Your task to perform on an android device: Search for apple airpods on walmart, select the first entry, and add it to the cart. Image 0: 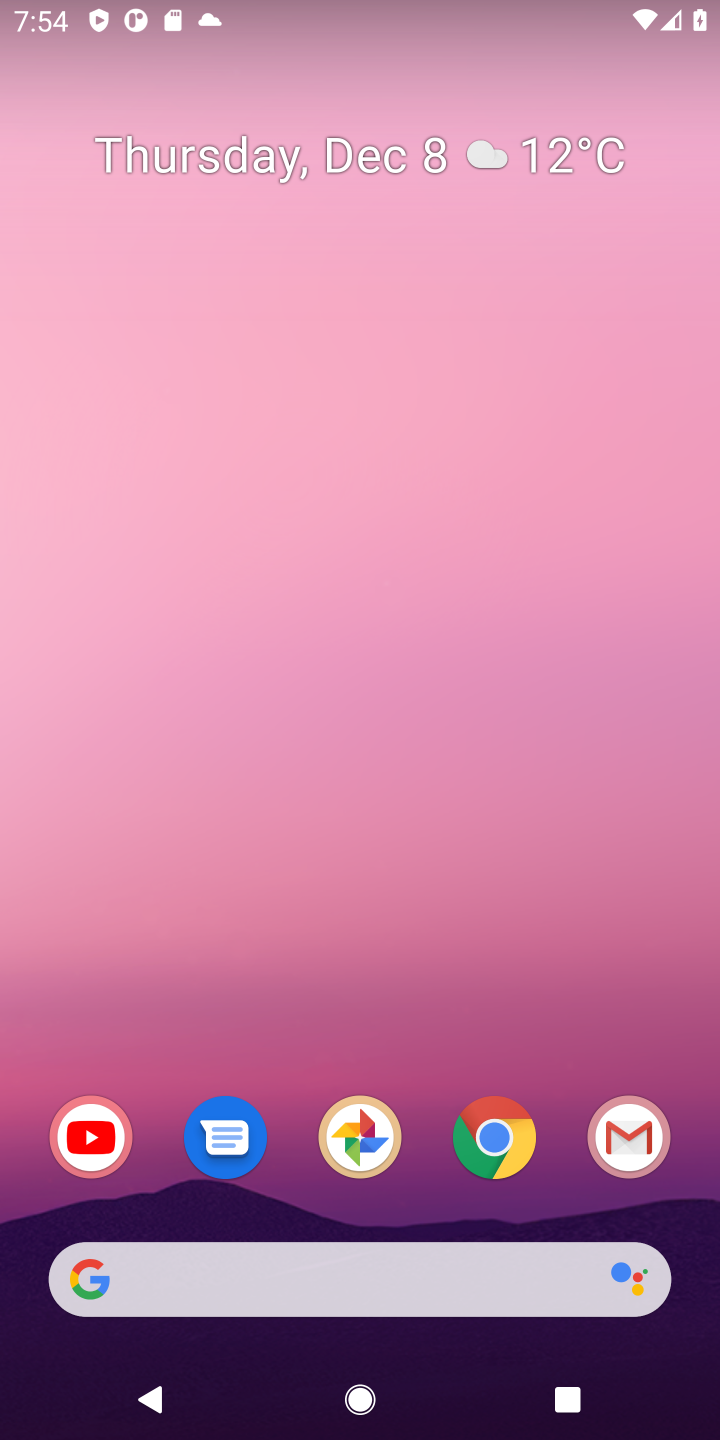
Step 0: click (500, 1161)
Your task to perform on an android device: Search for apple airpods on walmart, select the first entry, and add it to the cart. Image 1: 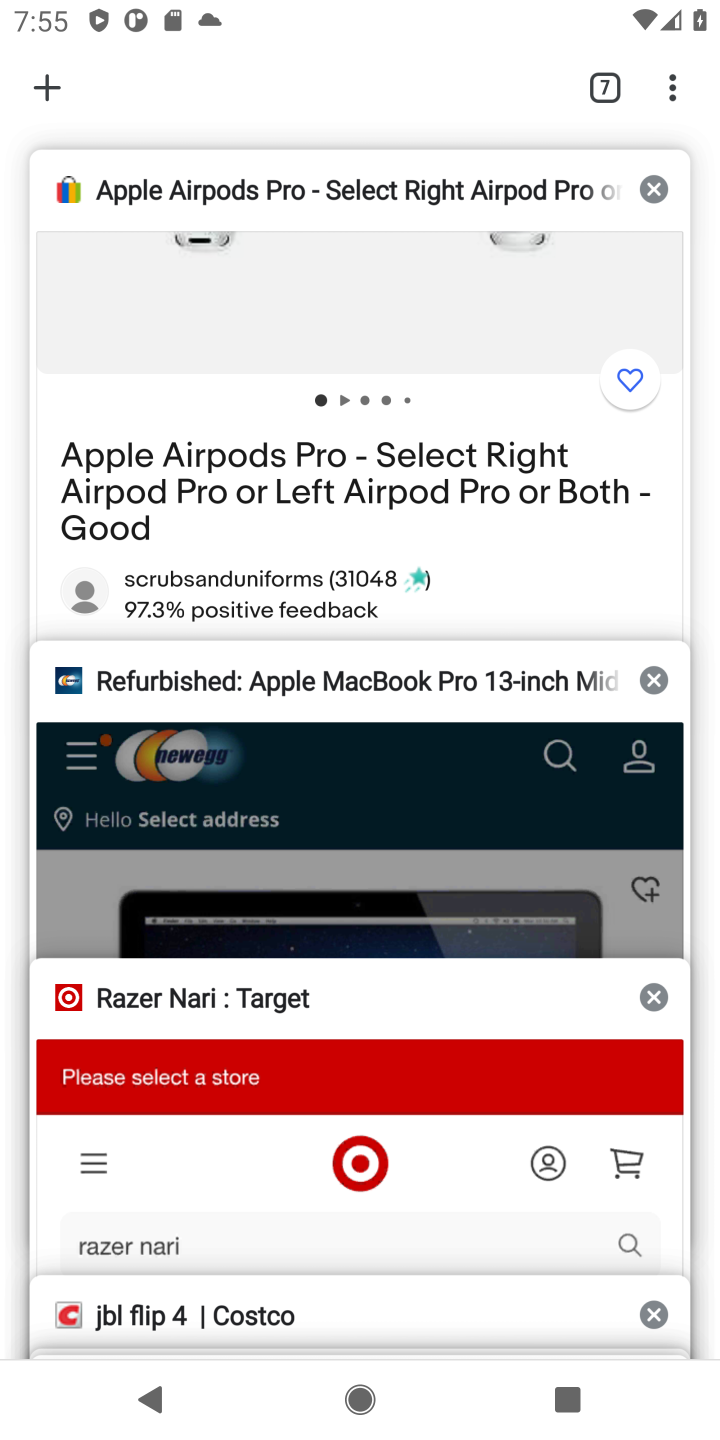
Step 1: drag from (314, 1185) to (465, 271)
Your task to perform on an android device: Search for apple airpods on walmart, select the first entry, and add it to the cart. Image 2: 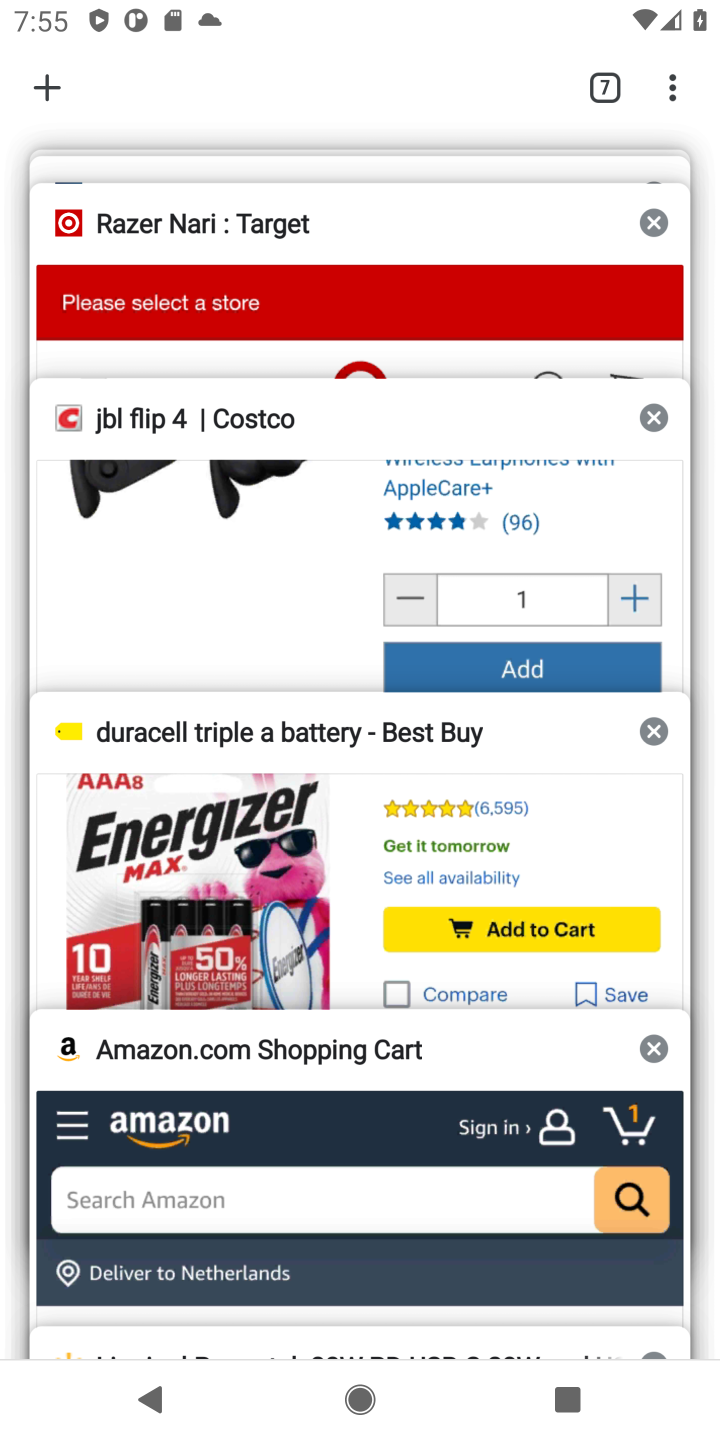
Step 2: drag from (297, 1234) to (428, 782)
Your task to perform on an android device: Search for apple airpods on walmart, select the first entry, and add it to the cart. Image 3: 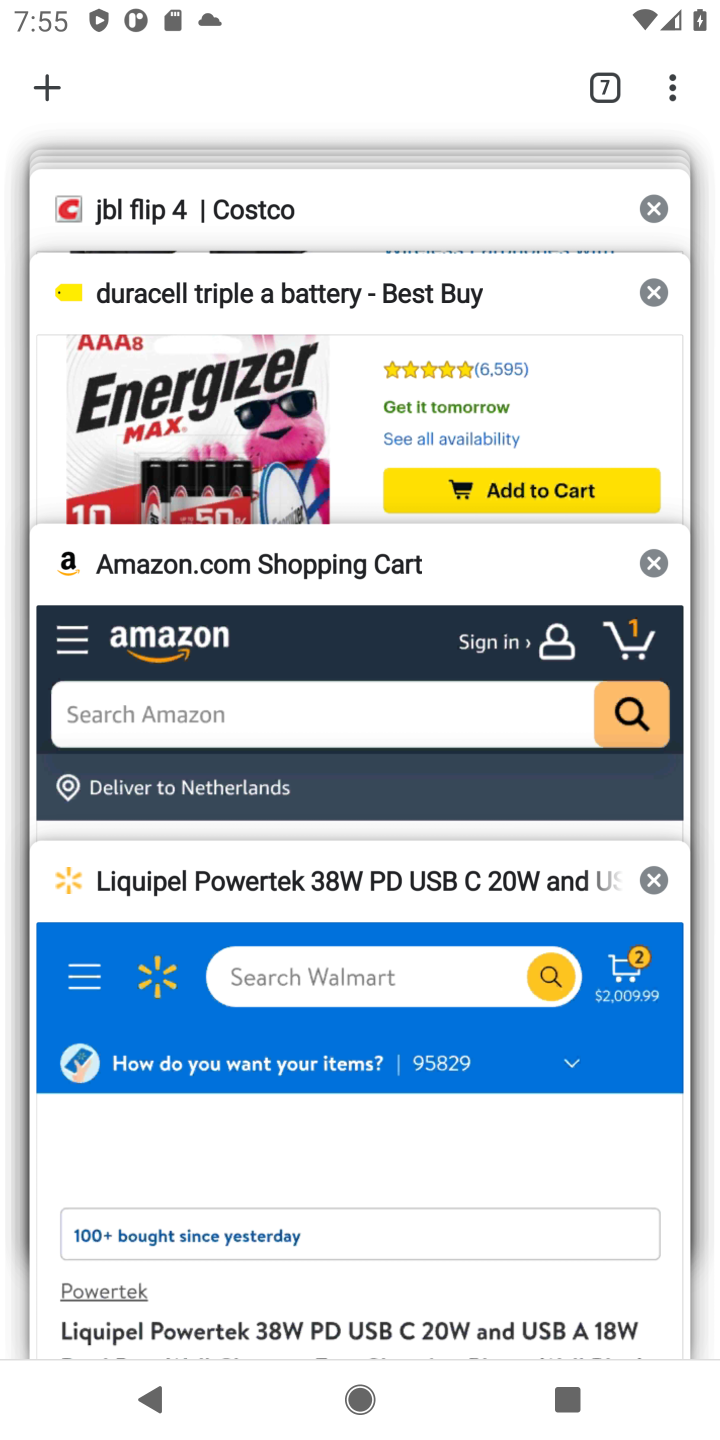
Step 3: click (144, 1028)
Your task to perform on an android device: Search for apple airpods on walmart, select the first entry, and add it to the cart. Image 4: 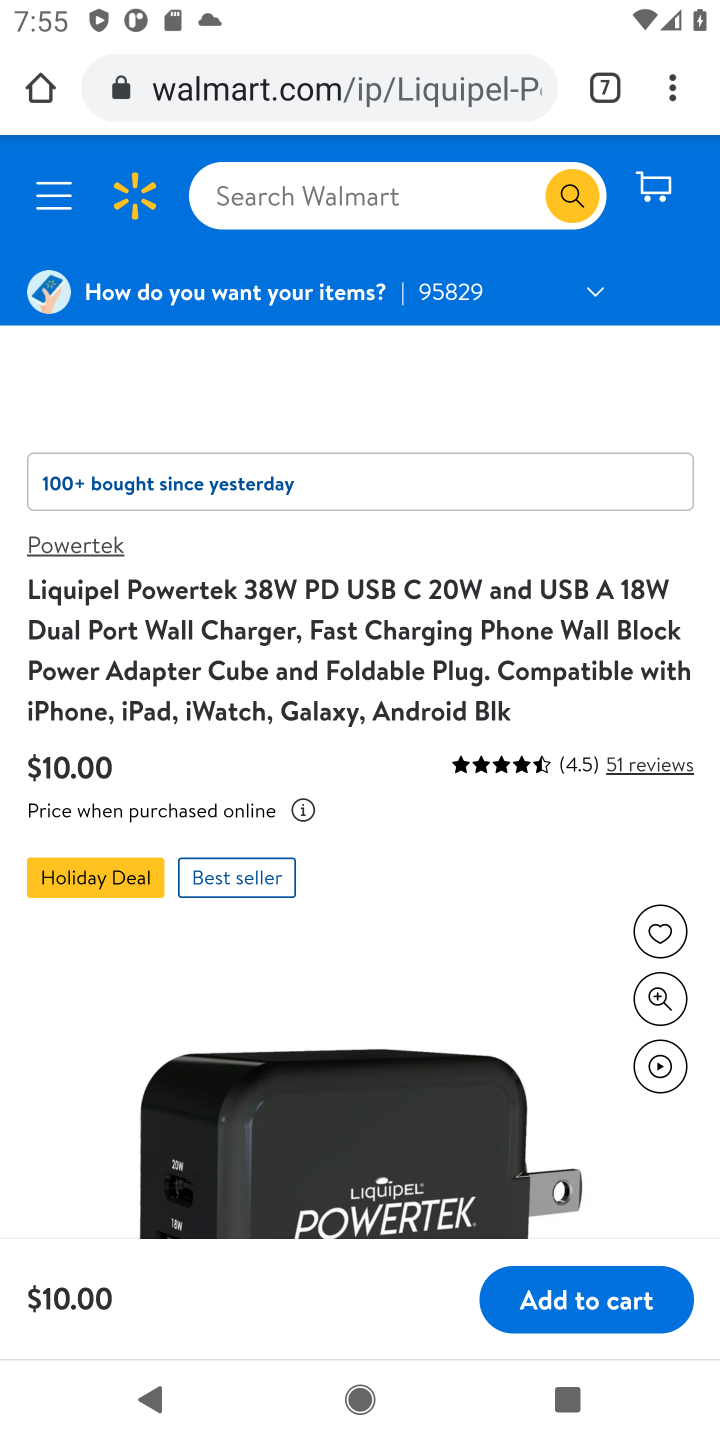
Step 4: click (391, 187)
Your task to perform on an android device: Search for apple airpods on walmart, select the first entry, and add it to the cart. Image 5: 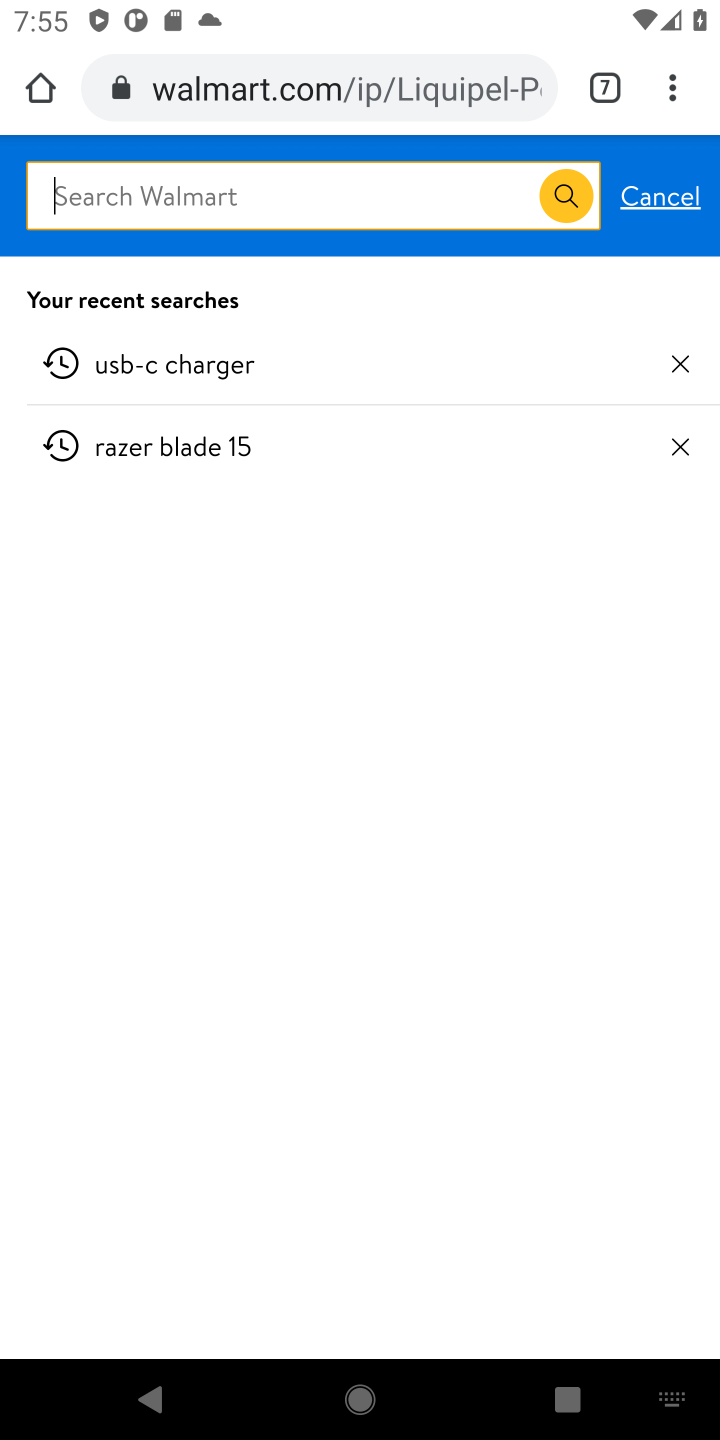
Step 5: type "apple airpods"
Your task to perform on an android device: Search for apple airpods on walmart, select the first entry, and add it to the cart. Image 6: 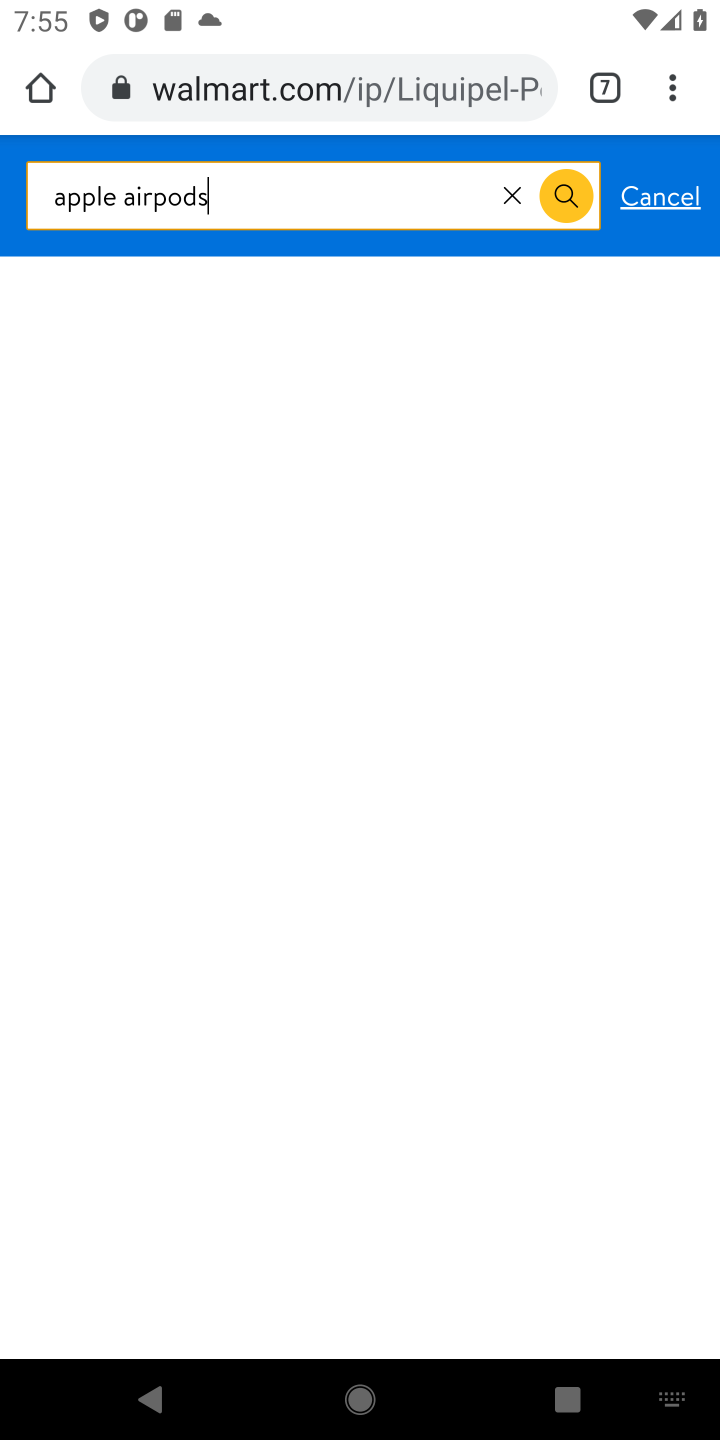
Step 6: click (572, 182)
Your task to perform on an android device: Search for apple airpods on walmart, select the first entry, and add it to the cart. Image 7: 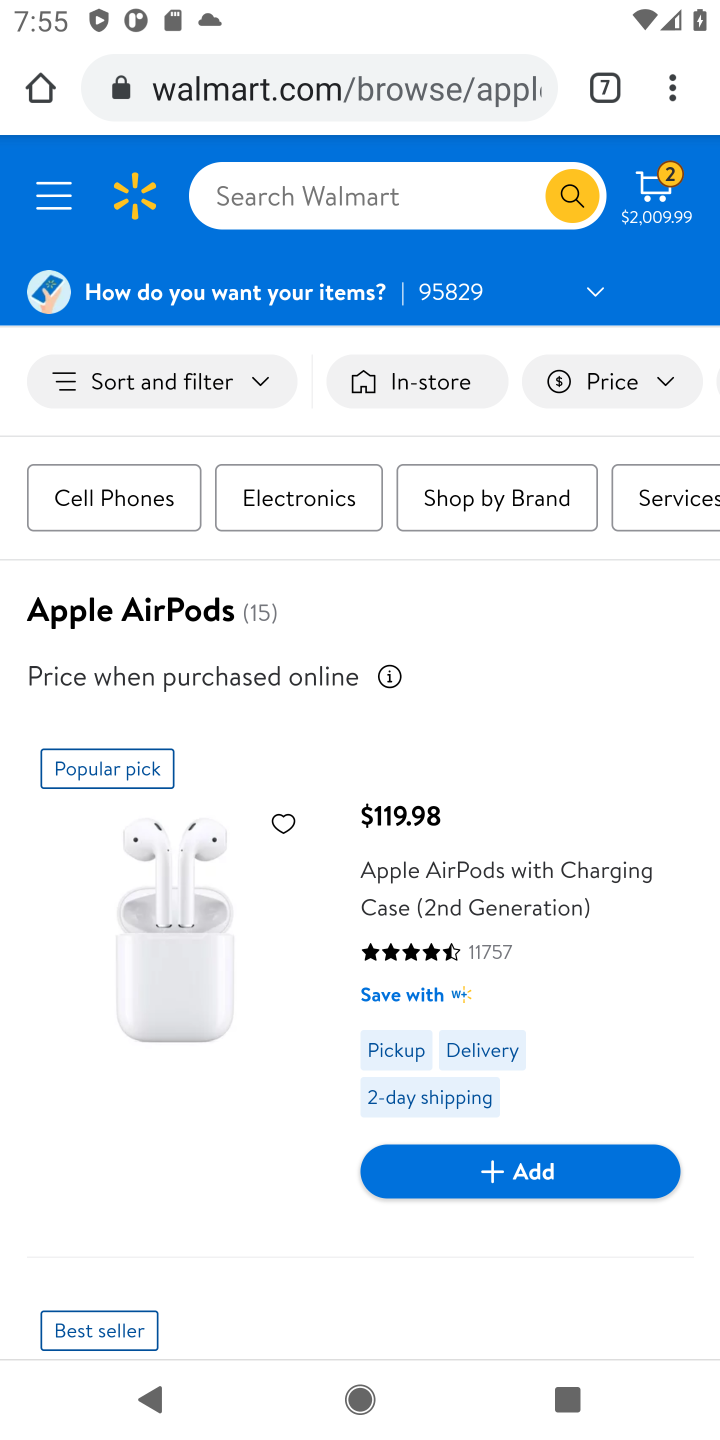
Step 7: click (522, 1163)
Your task to perform on an android device: Search for apple airpods on walmart, select the first entry, and add it to the cart. Image 8: 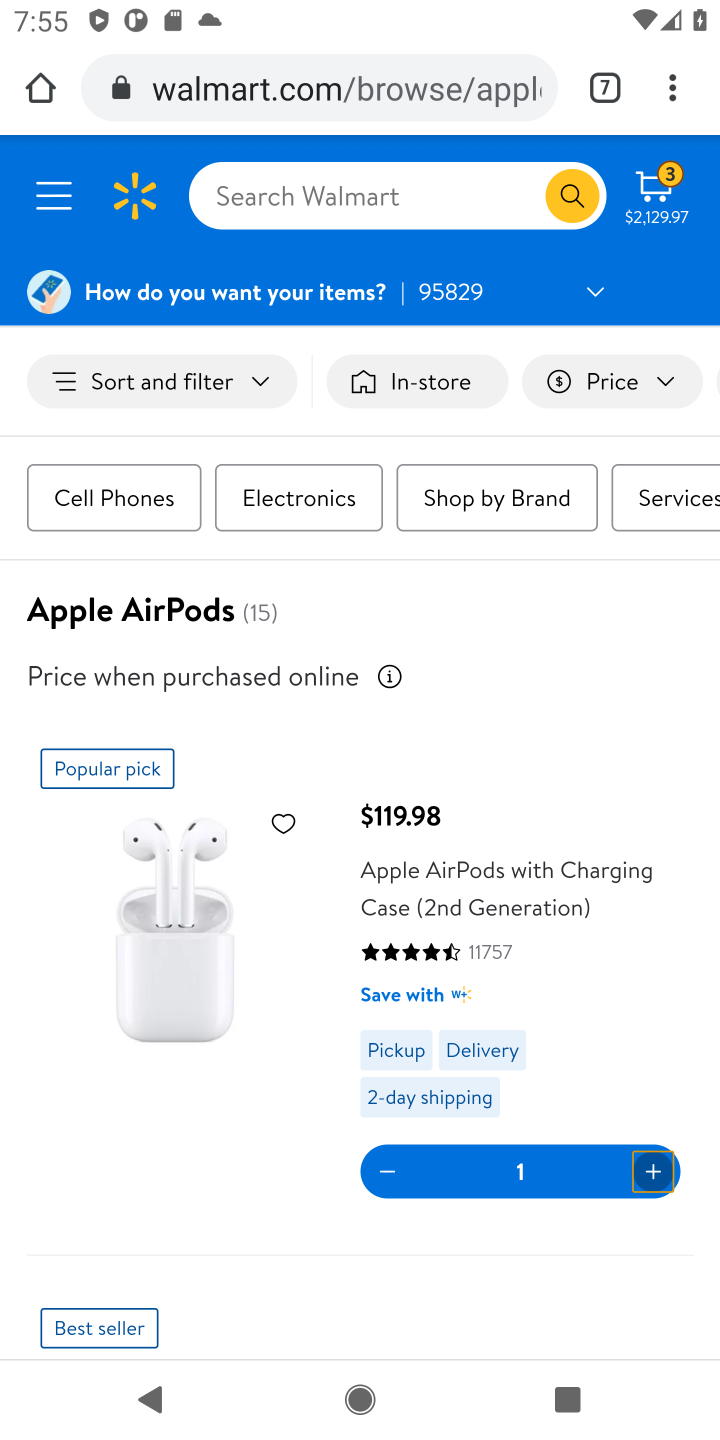
Step 8: task complete